Your task to perform on an android device: change the clock display to show seconds Image 0: 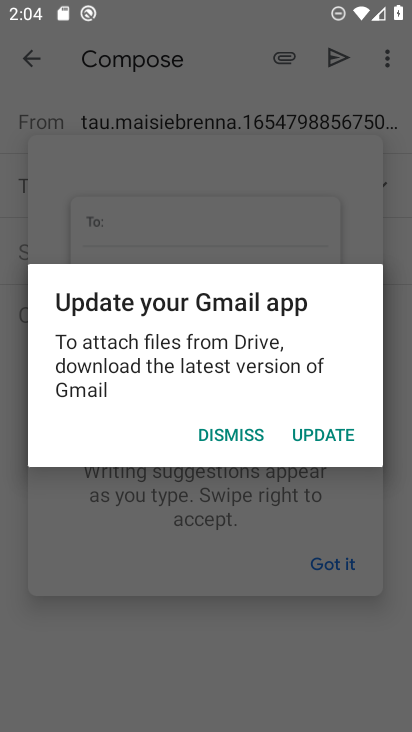
Step 0: press home button
Your task to perform on an android device: change the clock display to show seconds Image 1: 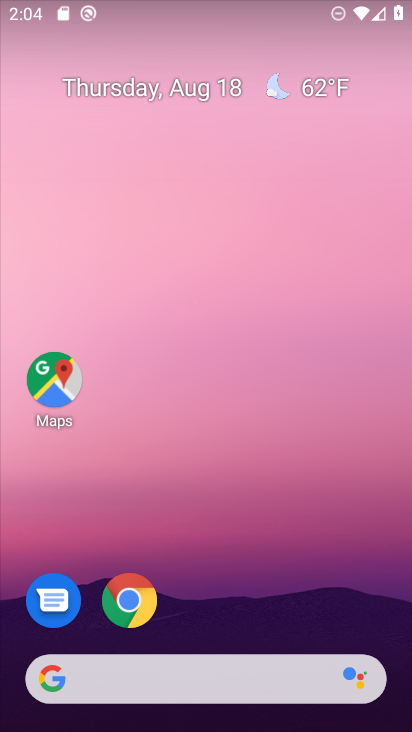
Step 1: drag from (246, 589) to (155, 109)
Your task to perform on an android device: change the clock display to show seconds Image 2: 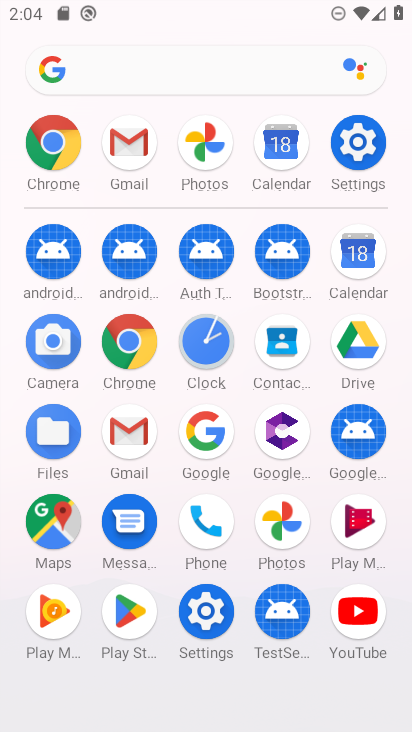
Step 2: click (210, 342)
Your task to perform on an android device: change the clock display to show seconds Image 3: 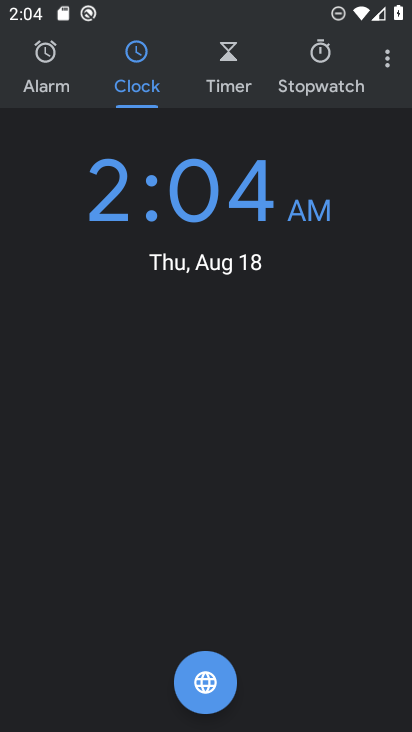
Step 3: click (396, 62)
Your task to perform on an android device: change the clock display to show seconds Image 4: 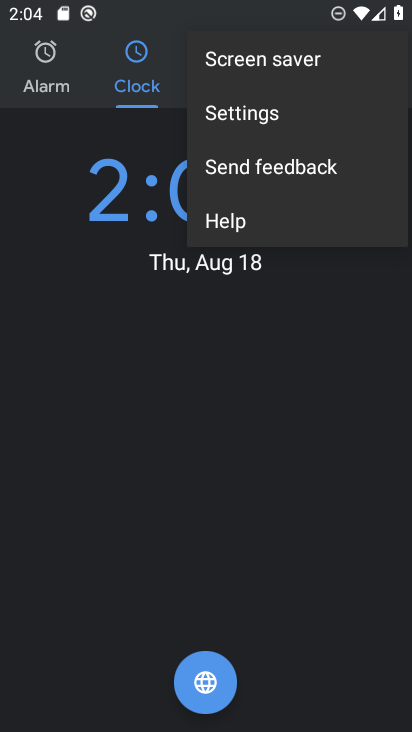
Step 4: click (268, 118)
Your task to perform on an android device: change the clock display to show seconds Image 5: 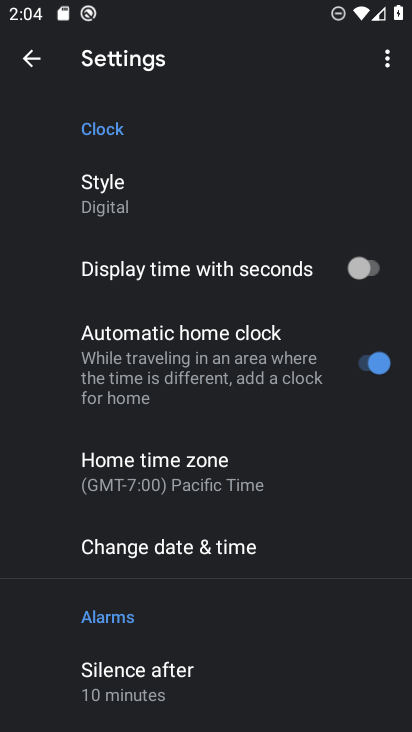
Step 5: click (370, 265)
Your task to perform on an android device: change the clock display to show seconds Image 6: 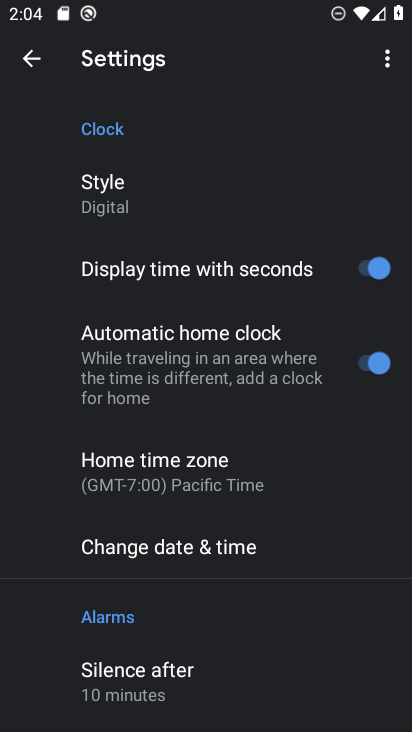
Step 6: task complete